Your task to perform on an android device: Show me productivity apps on the Play Store Image 0: 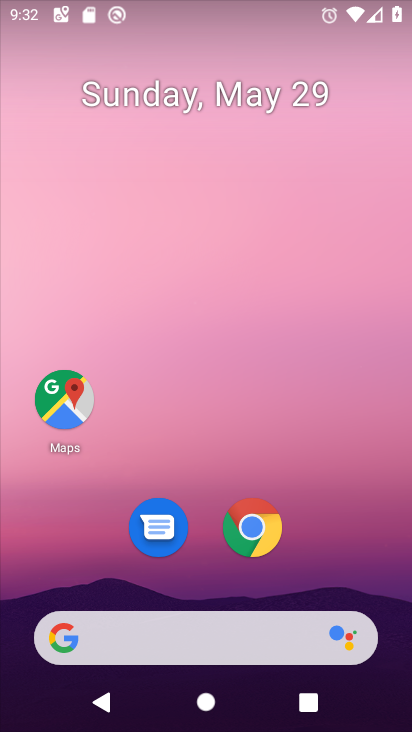
Step 0: drag from (197, 585) to (168, 0)
Your task to perform on an android device: Show me productivity apps on the Play Store Image 1: 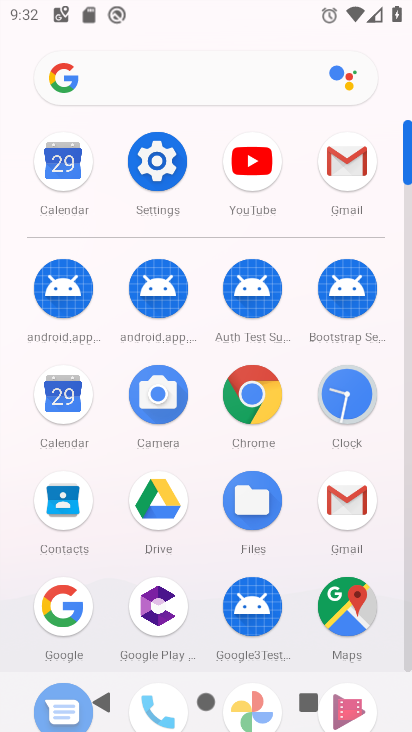
Step 1: drag from (200, 561) to (212, 63)
Your task to perform on an android device: Show me productivity apps on the Play Store Image 2: 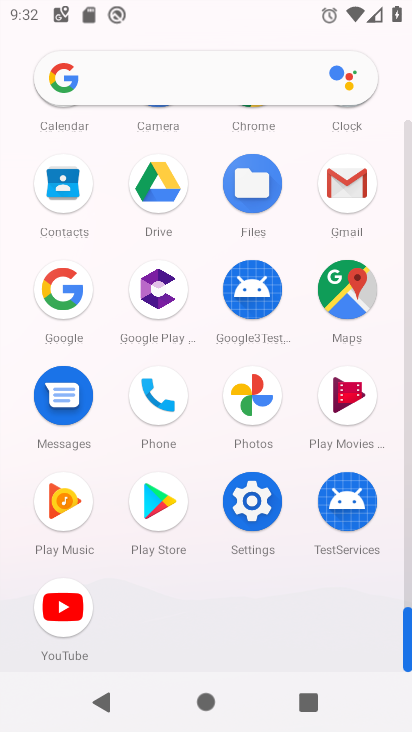
Step 2: click (154, 497)
Your task to perform on an android device: Show me productivity apps on the Play Store Image 3: 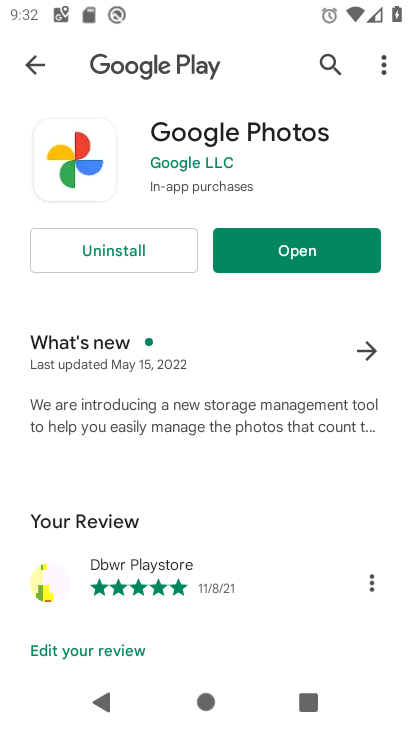
Step 3: click (32, 67)
Your task to perform on an android device: Show me productivity apps on the Play Store Image 4: 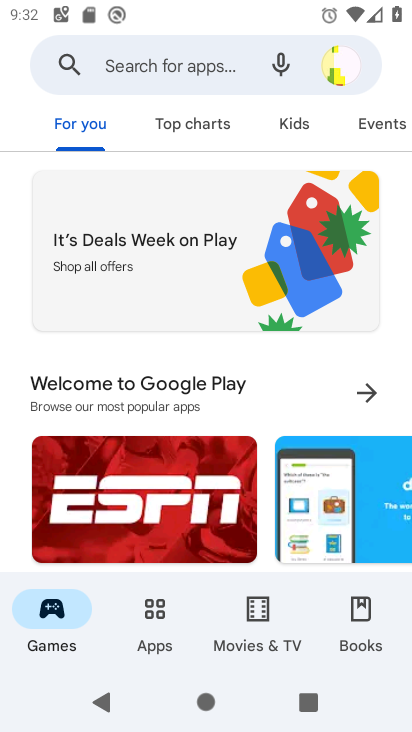
Step 4: click (156, 609)
Your task to perform on an android device: Show me productivity apps on the Play Store Image 5: 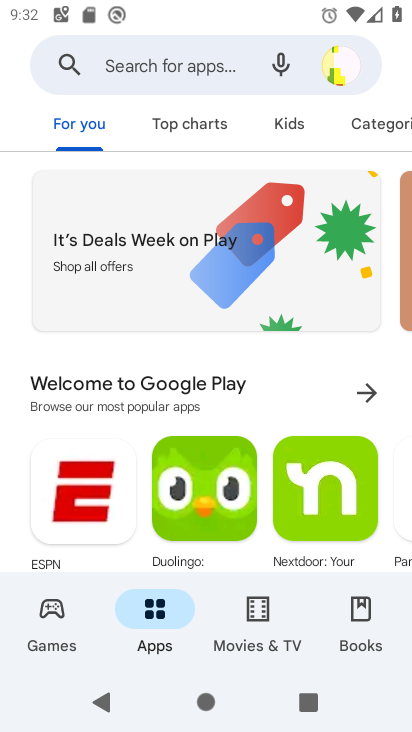
Step 5: click (384, 120)
Your task to perform on an android device: Show me productivity apps on the Play Store Image 6: 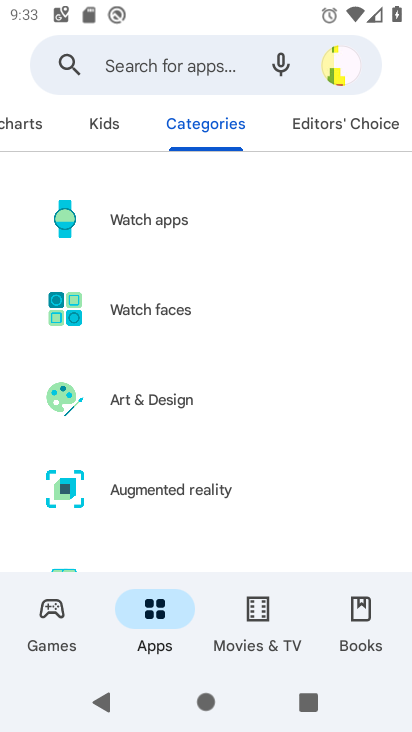
Step 6: drag from (155, 526) to (146, 84)
Your task to perform on an android device: Show me productivity apps on the Play Store Image 7: 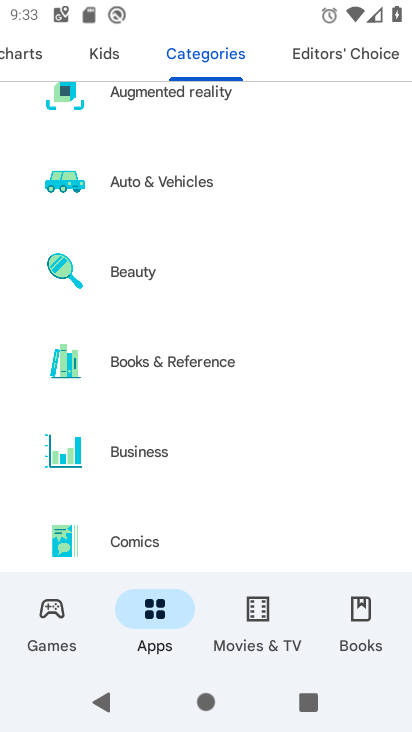
Step 7: drag from (166, 518) to (157, 24)
Your task to perform on an android device: Show me productivity apps on the Play Store Image 8: 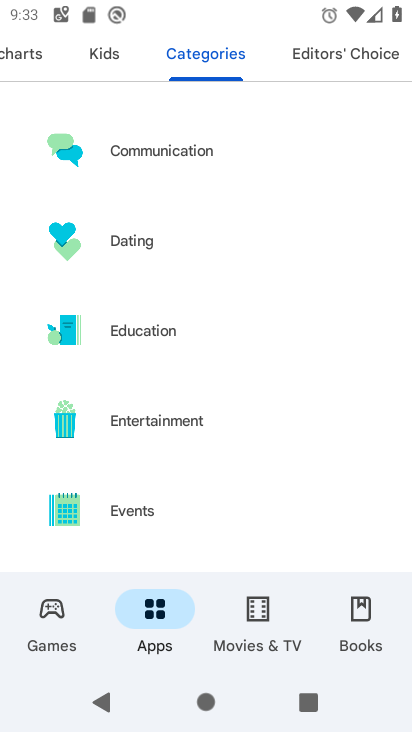
Step 8: drag from (172, 527) to (156, 13)
Your task to perform on an android device: Show me productivity apps on the Play Store Image 9: 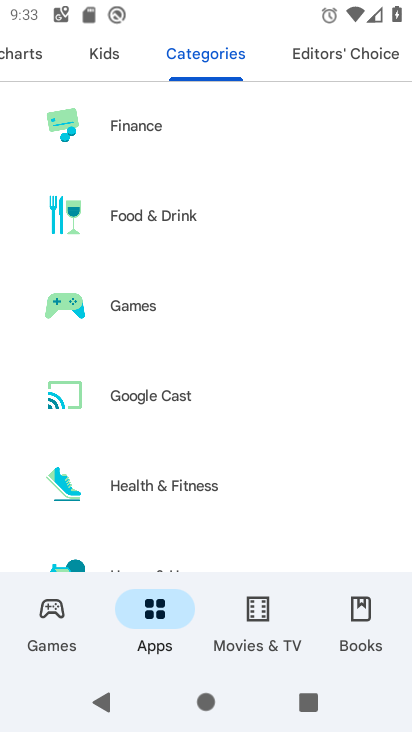
Step 9: drag from (145, 519) to (157, 2)
Your task to perform on an android device: Show me productivity apps on the Play Store Image 10: 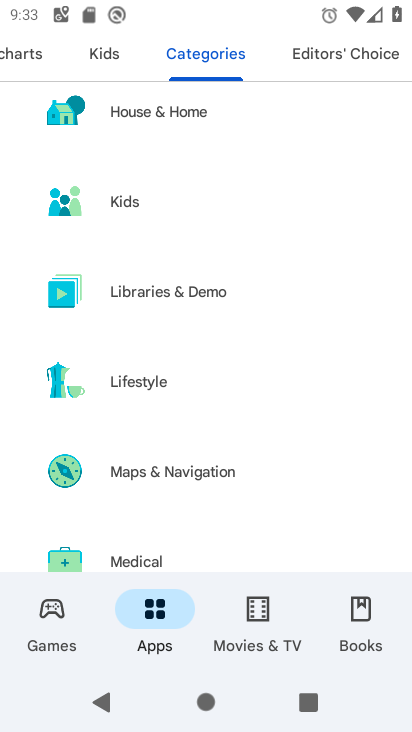
Step 10: drag from (144, 506) to (180, 2)
Your task to perform on an android device: Show me productivity apps on the Play Store Image 11: 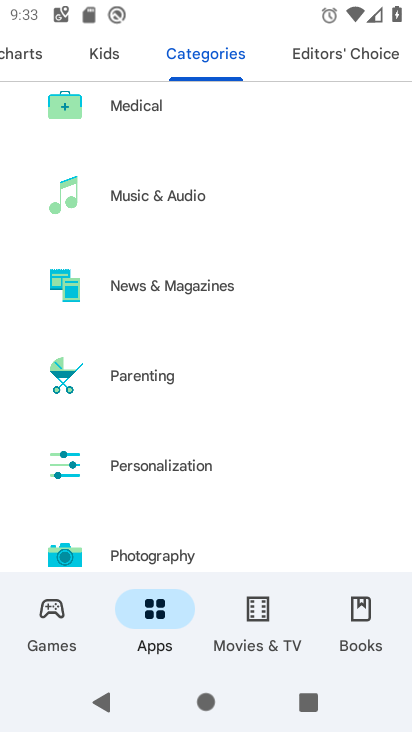
Step 11: drag from (169, 530) to (158, 47)
Your task to perform on an android device: Show me productivity apps on the Play Store Image 12: 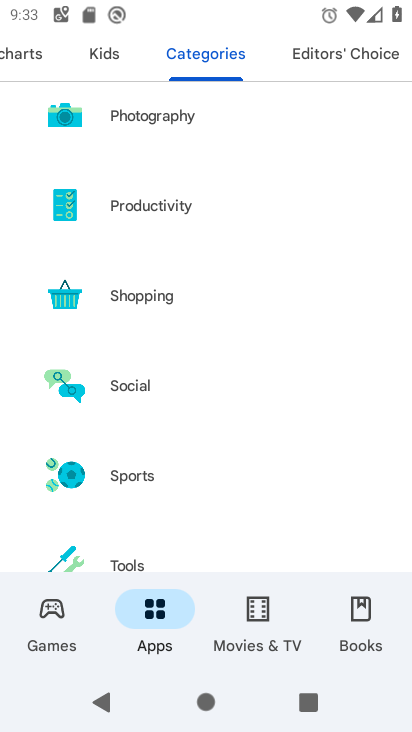
Step 12: click (142, 195)
Your task to perform on an android device: Show me productivity apps on the Play Store Image 13: 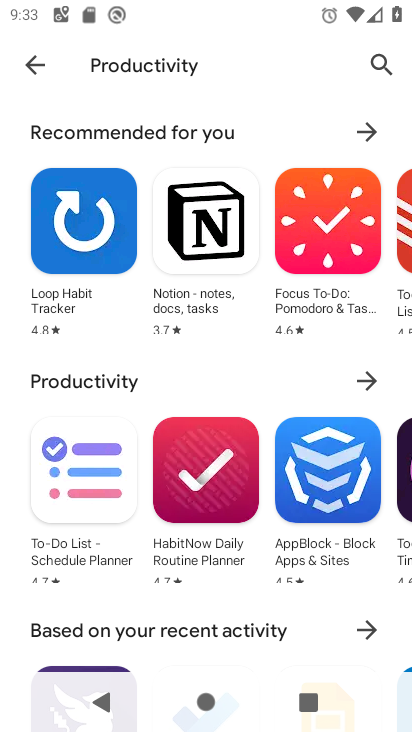
Step 13: task complete